Your task to perform on an android device: toggle javascript in the chrome app Image 0: 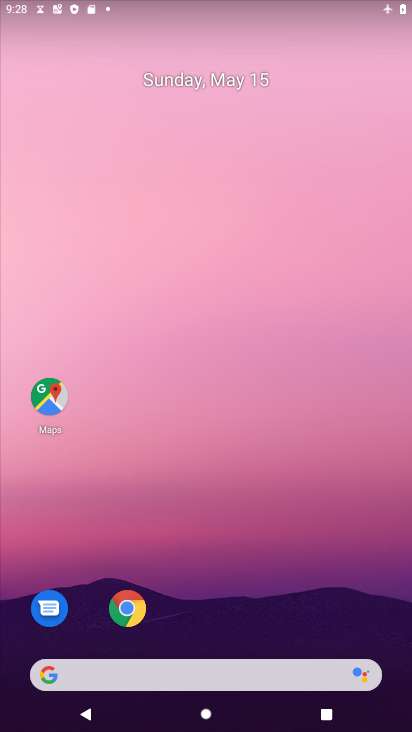
Step 0: drag from (250, 482) to (215, 25)
Your task to perform on an android device: toggle javascript in the chrome app Image 1: 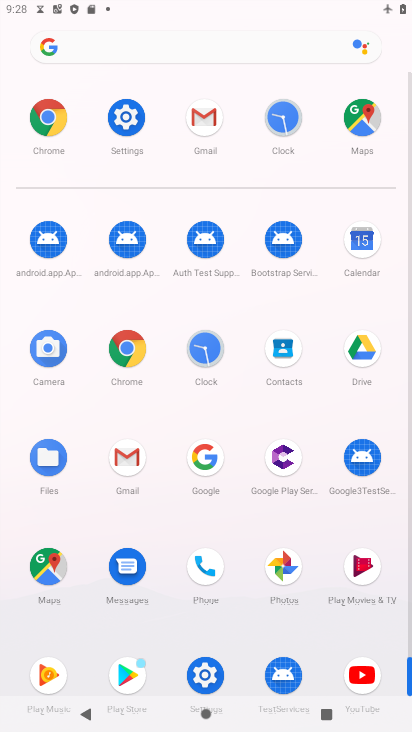
Step 1: click (50, 136)
Your task to perform on an android device: toggle javascript in the chrome app Image 2: 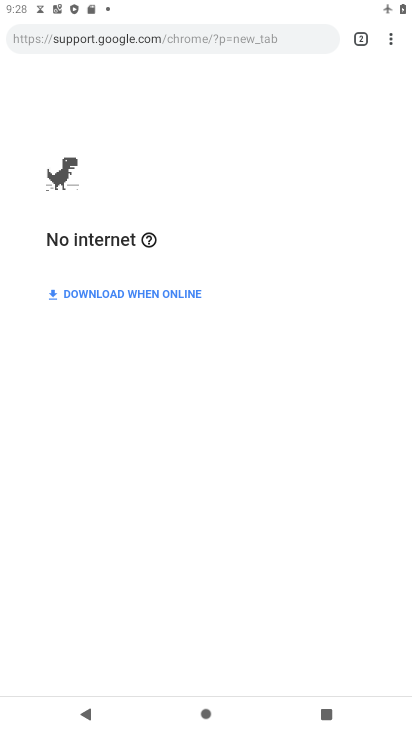
Step 2: drag from (385, 41) to (272, 445)
Your task to perform on an android device: toggle javascript in the chrome app Image 3: 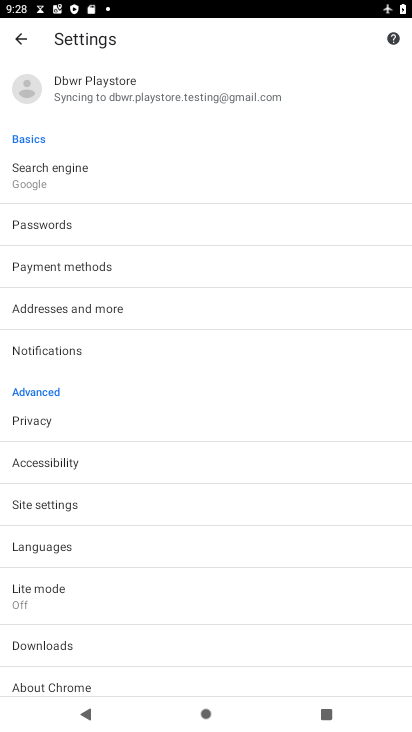
Step 3: click (82, 514)
Your task to perform on an android device: toggle javascript in the chrome app Image 4: 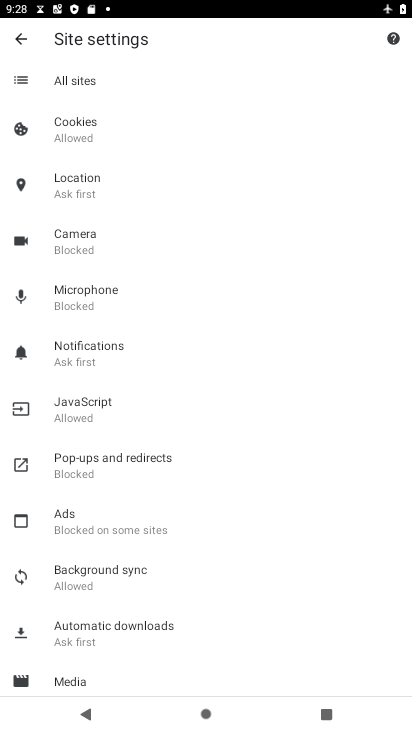
Step 4: click (51, 408)
Your task to perform on an android device: toggle javascript in the chrome app Image 5: 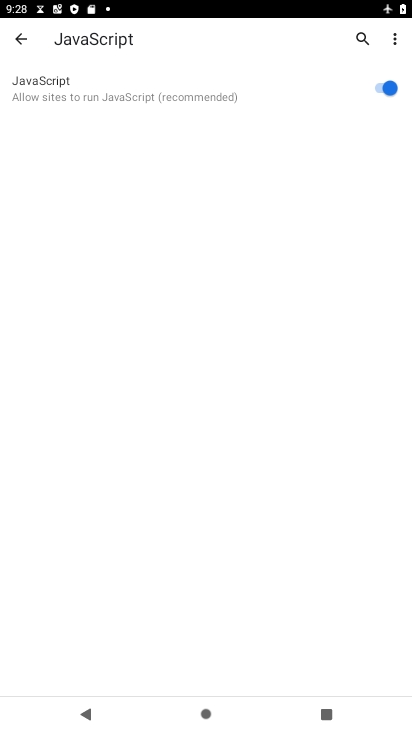
Step 5: click (388, 86)
Your task to perform on an android device: toggle javascript in the chrome app Image 6: 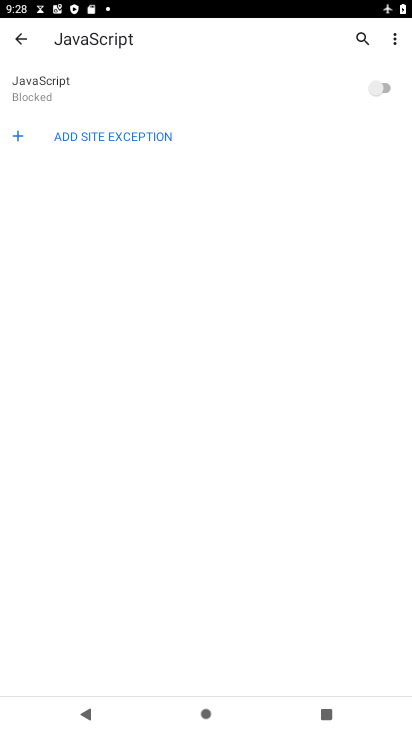
Step 6: task complete